Your task to perform on an android device: toggle notification dots Image 0: 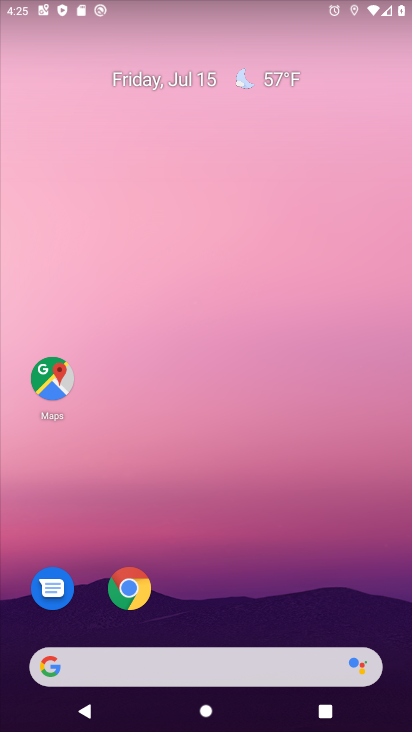
Step 0: drag from (217, 668) to (242, 145)
Your task to perform on an android device: toggle notification dots Image 1: 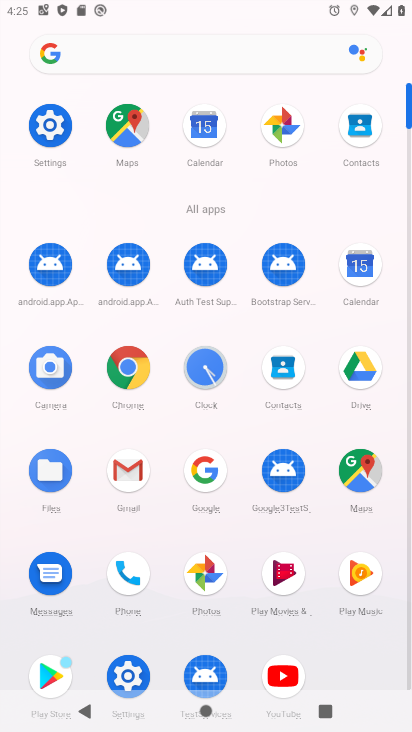
Step 1: click (51, 124)
Your task to perform on an android device: toggle notification dots Image 2: 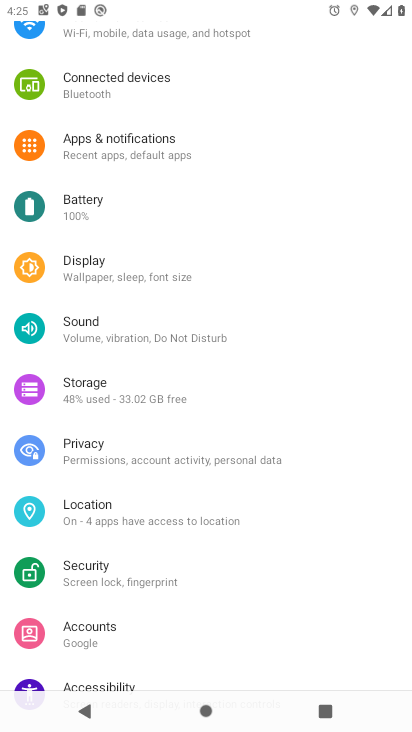
Step 2: click (103, 149)
Your task to perform on an android device: toggle notification dots Image 3: 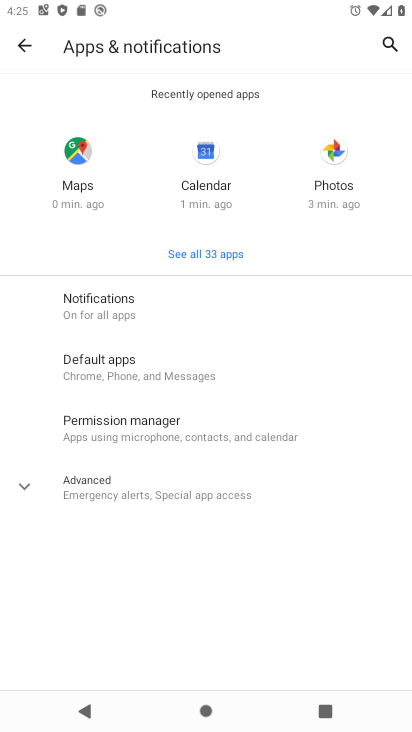
Step 3: click (94, 301)
Your task to perform on an android device: toggle notification dots Image 4: 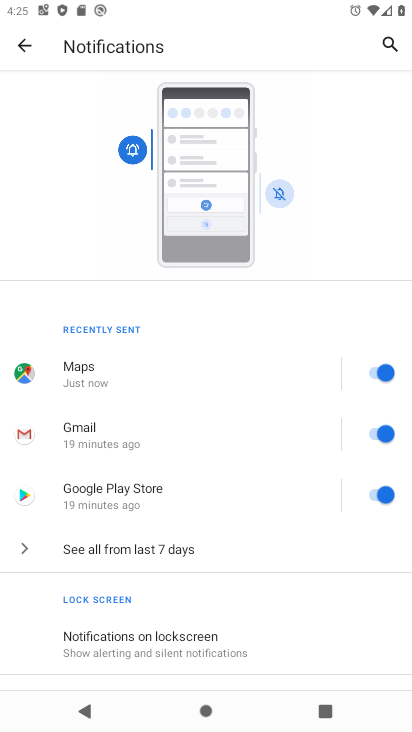
Step 4: drag from (170, 587) to (251, 374)
Your task to perform on an android device: toggle notification dots Image 5: 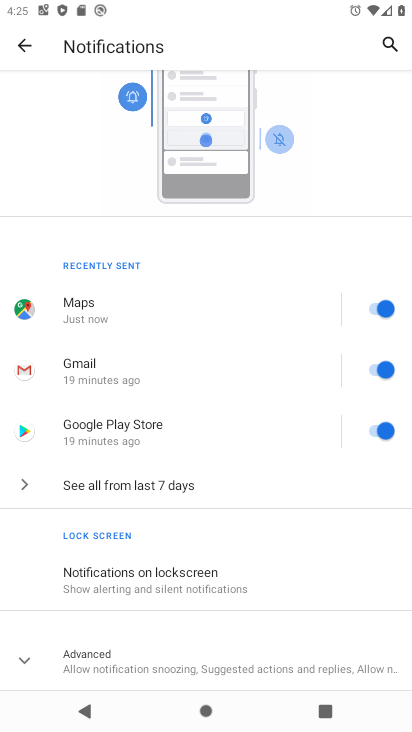
Step 5: click (139, 669)
Your task to perform on an android device: toggle notification dots Image 6: 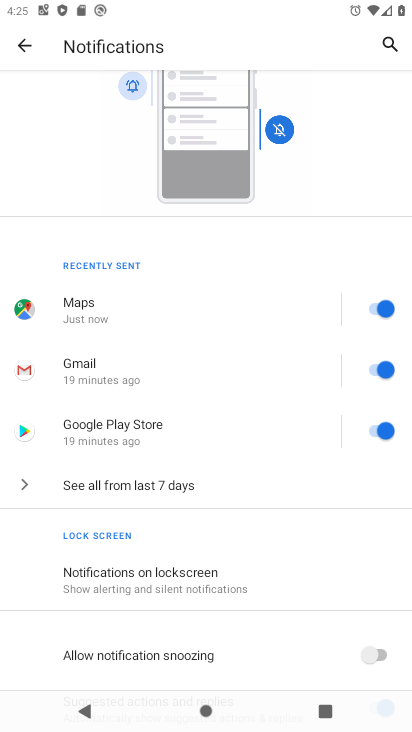
Step 6: drag from (139, 669) to (230, 384)
Your task to perform on an android device: toggle notification dots Image 7: 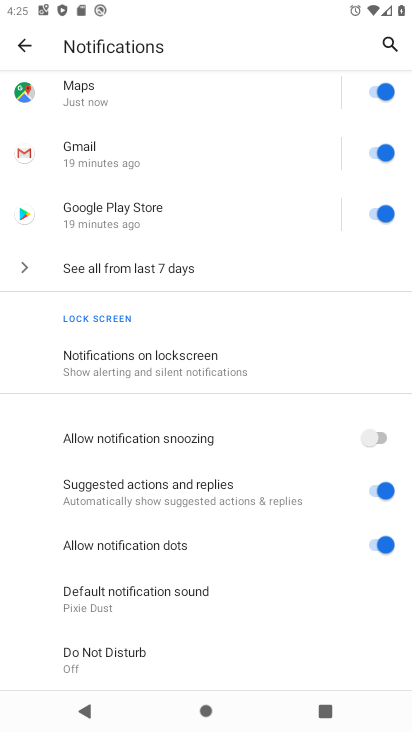
Step 7: click (373, 535)
Your task to perform on an android device: toggle notification dots Image 8: 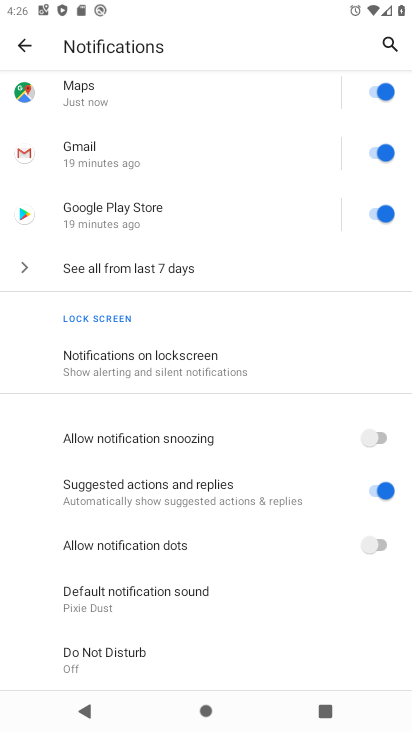
Step 8: task complete